Your task to perform on an android device: check battery use Image 0: 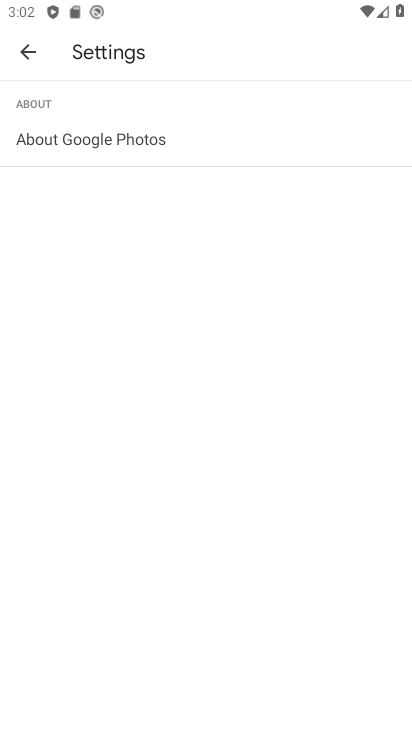
Step 0: press home button
Your task to perform on an android device: check battery use Image 1: 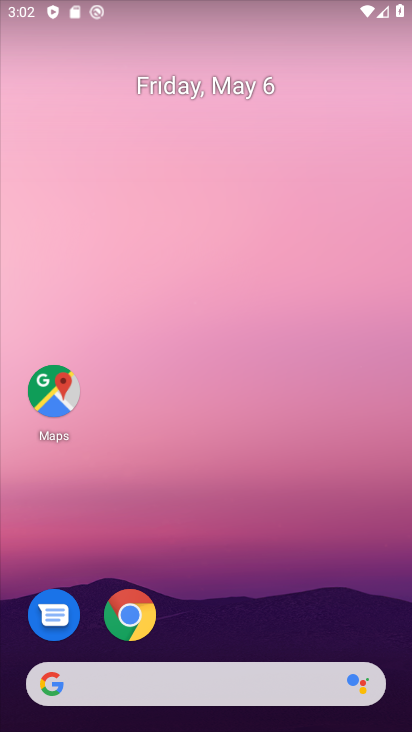
Step 1: drag from (307, 642) to (261, 33)
Your task to perform on an android device: check battery use Image 2: 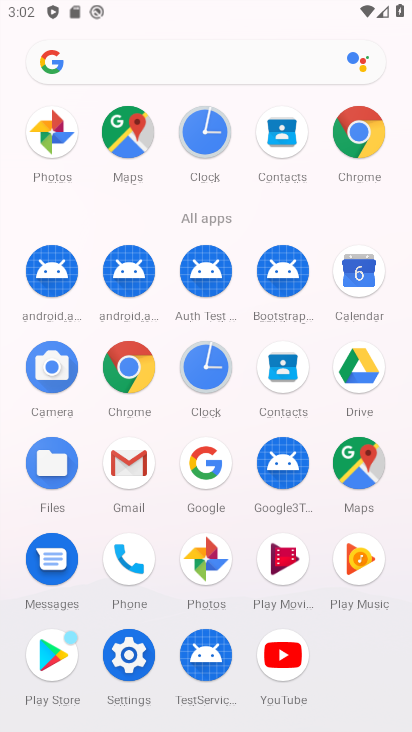
Step 2: click (120, 657)
Your task to perform on an android device: check battery use Image 3: 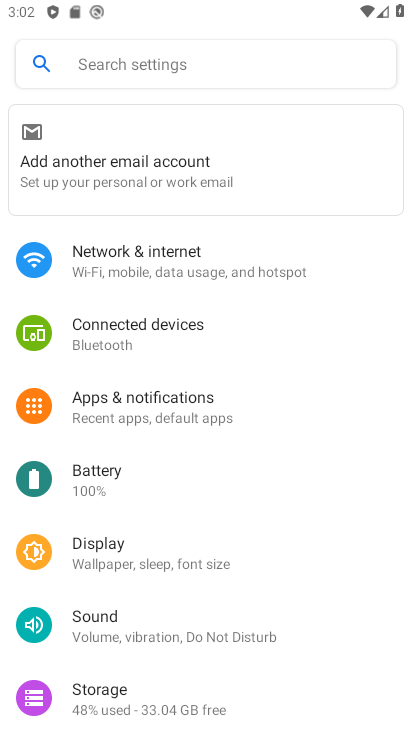
Step 3: click (101, 473)
Your task to perform on an android device: check battery use Image 4: 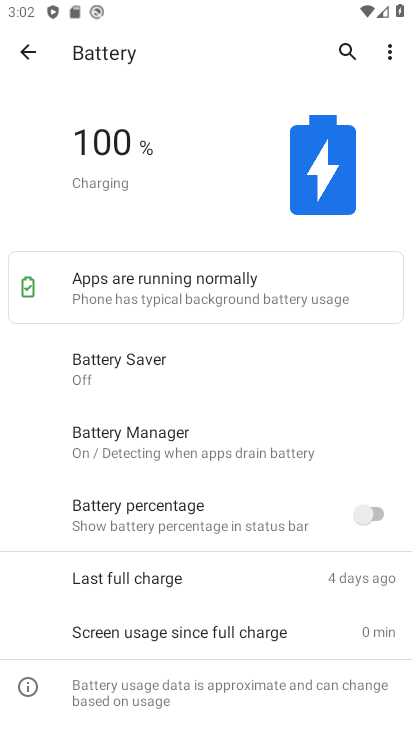
Step 4: click (392, 55)
Your task to perform on an android device: check battery use Image 5: 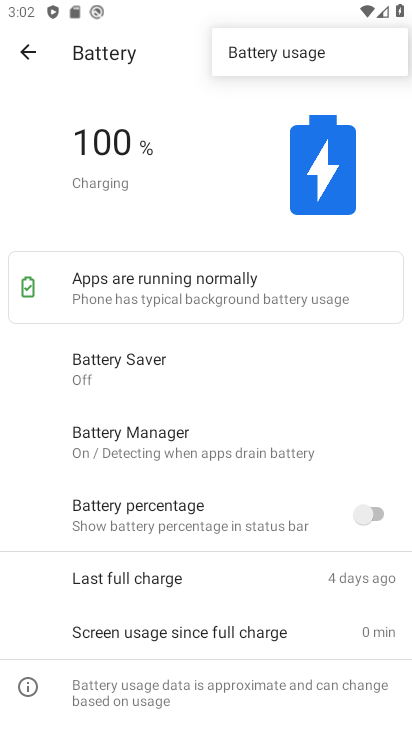
Step 5: click (298, 55)
Your task to perform on an android device: check battery use Image 6: 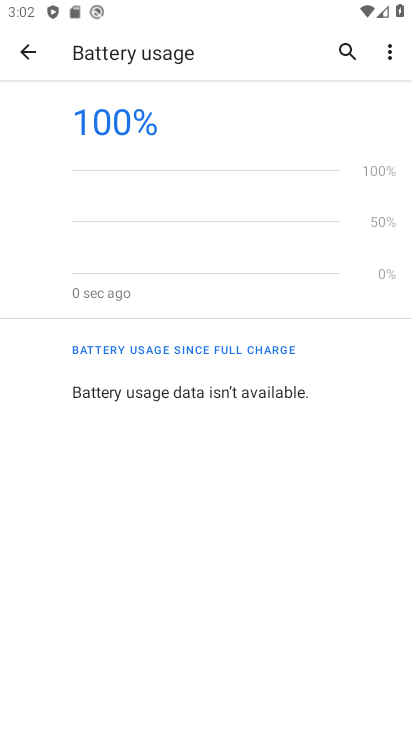
Step 6: task complete